Your task to perform on an android device: Open maps Image 0: 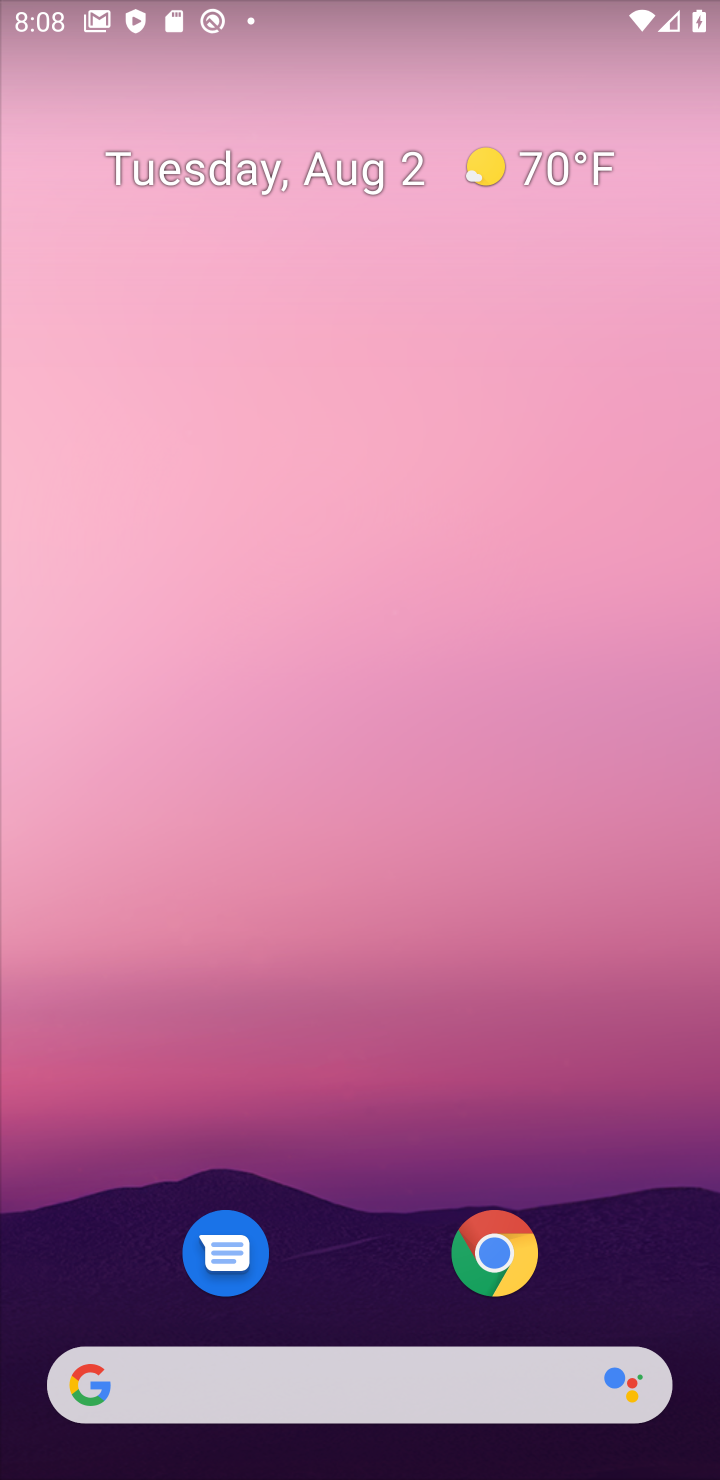
Step 0: drag from (431, 1349) to (597, 173)
Your task to perform on an android device: Open maps Image 1: 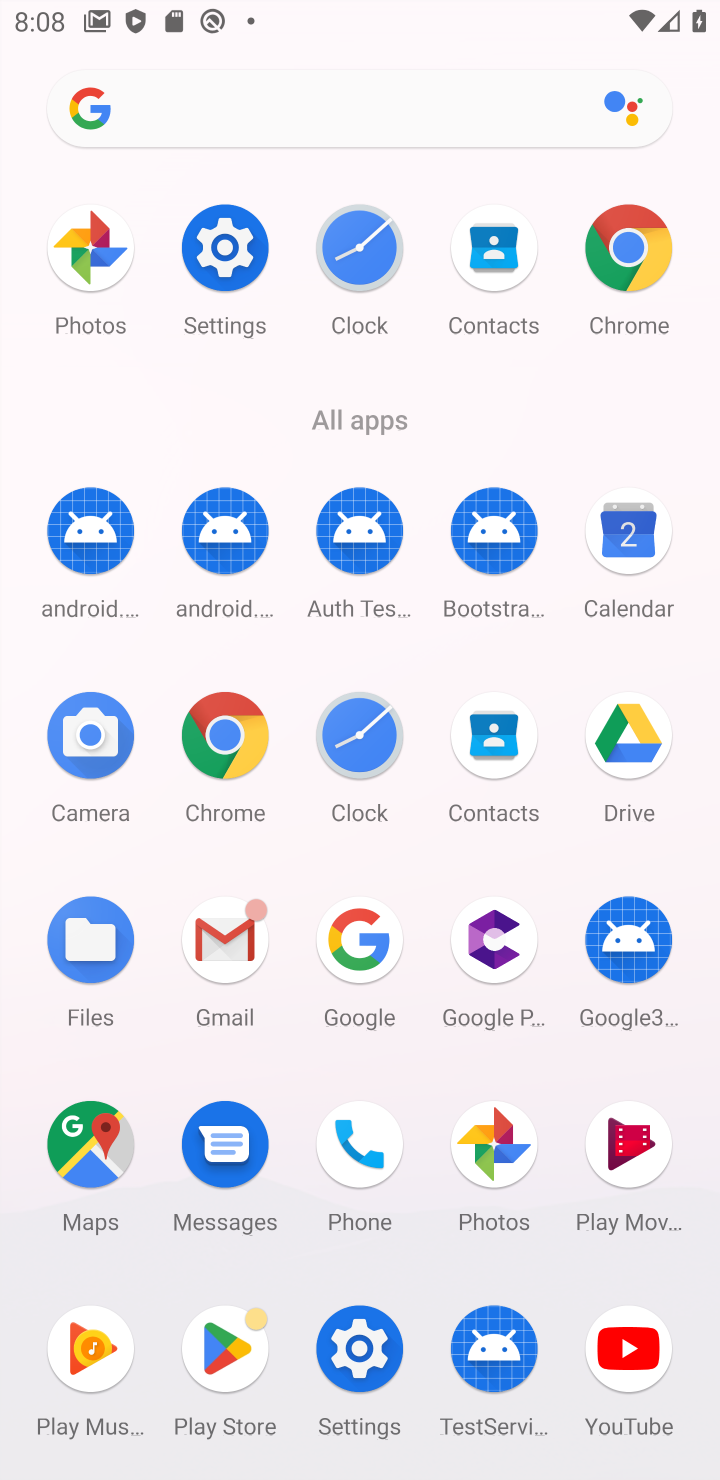
Step 1: drag from (95, 1149) to (259, 828)
Your task to perform on an android device: Open maps Image 2: 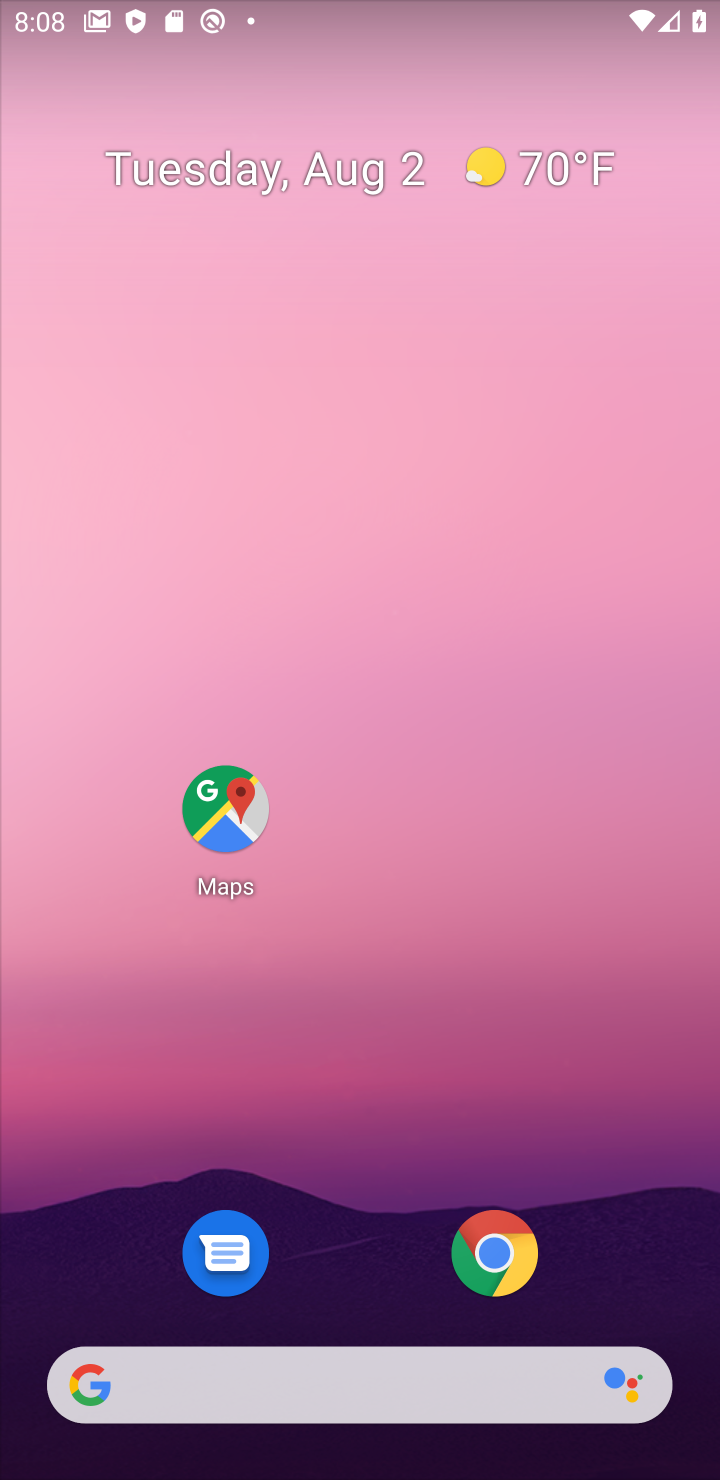
Step 2: click (234, 808)
Your task to perform on an android device: Open maps Image 3: 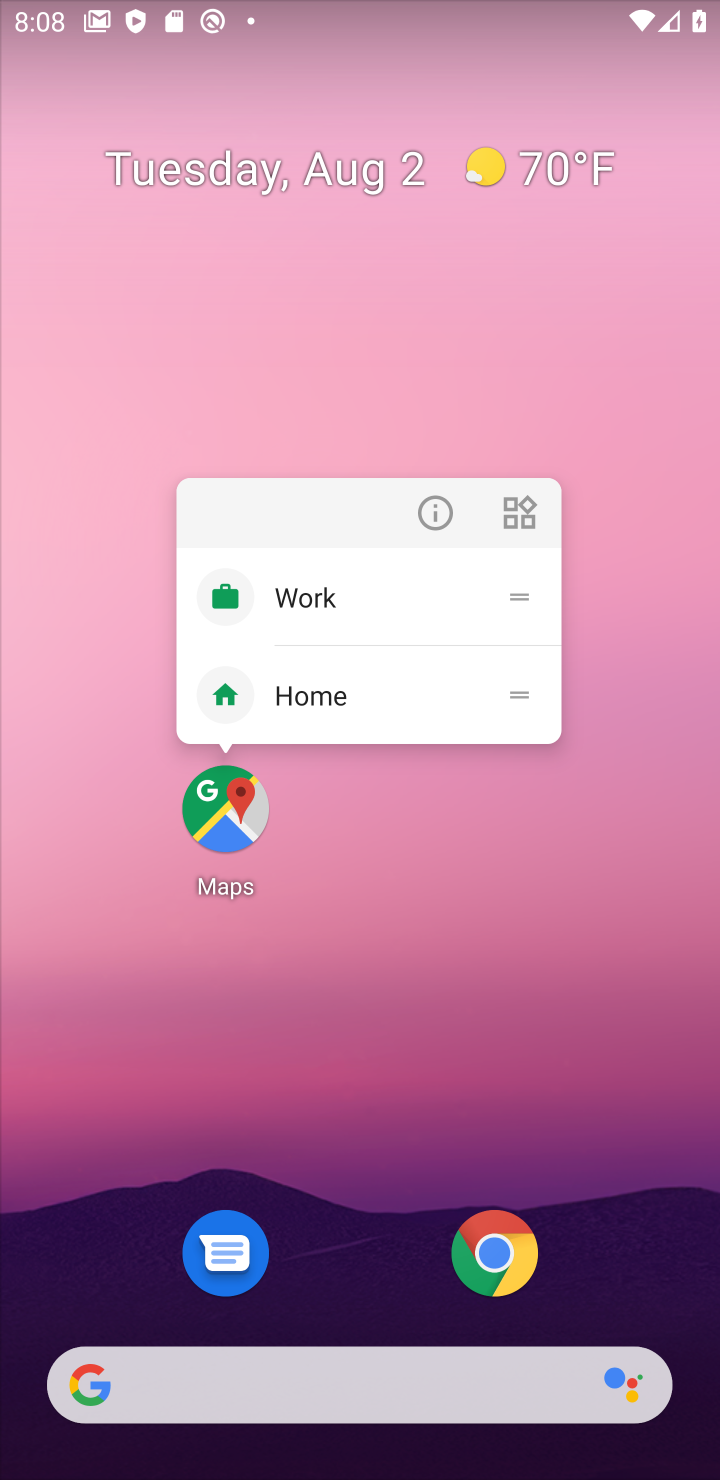
Step 3: click (234, 810)
Your task to perform on an android device: Open maps Image 4: 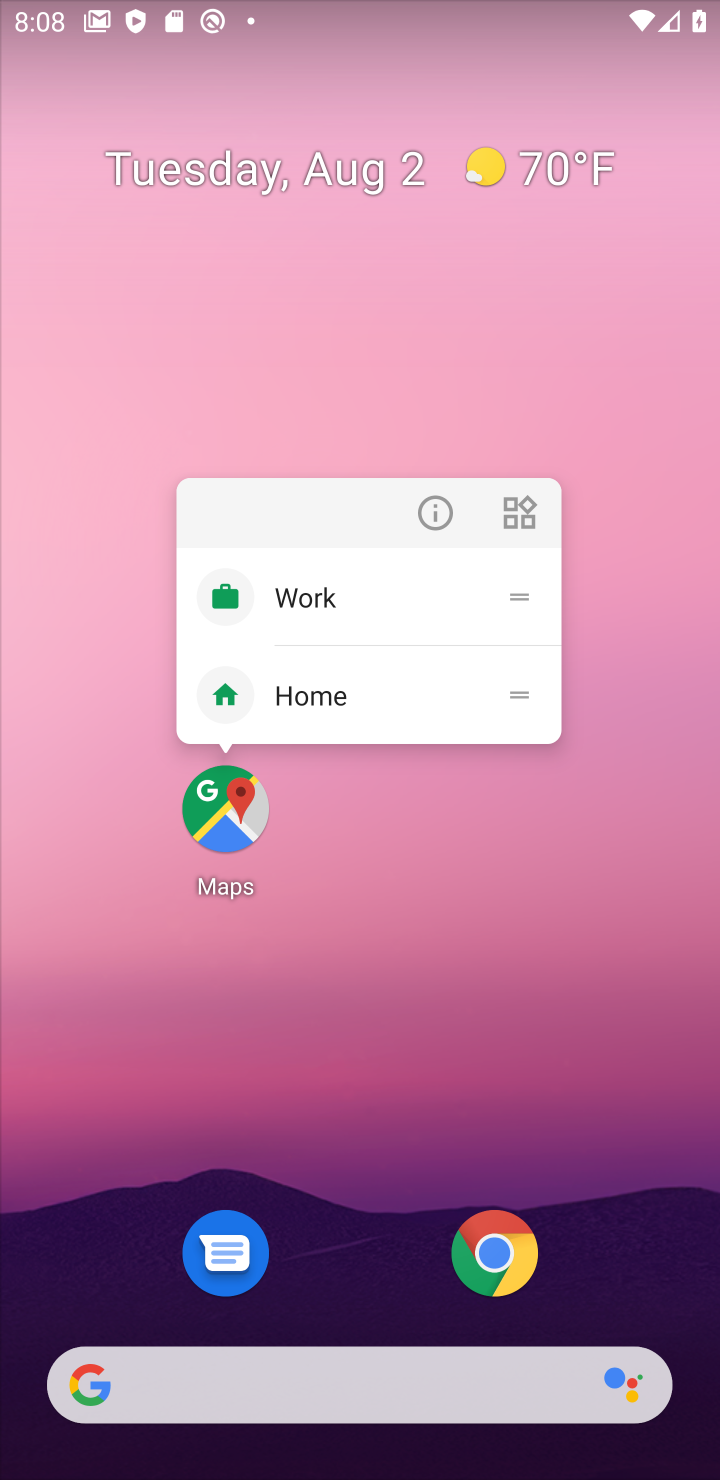
Step 4: click (234, 810)
Your task to perform on an android device: Open maps Image 5: 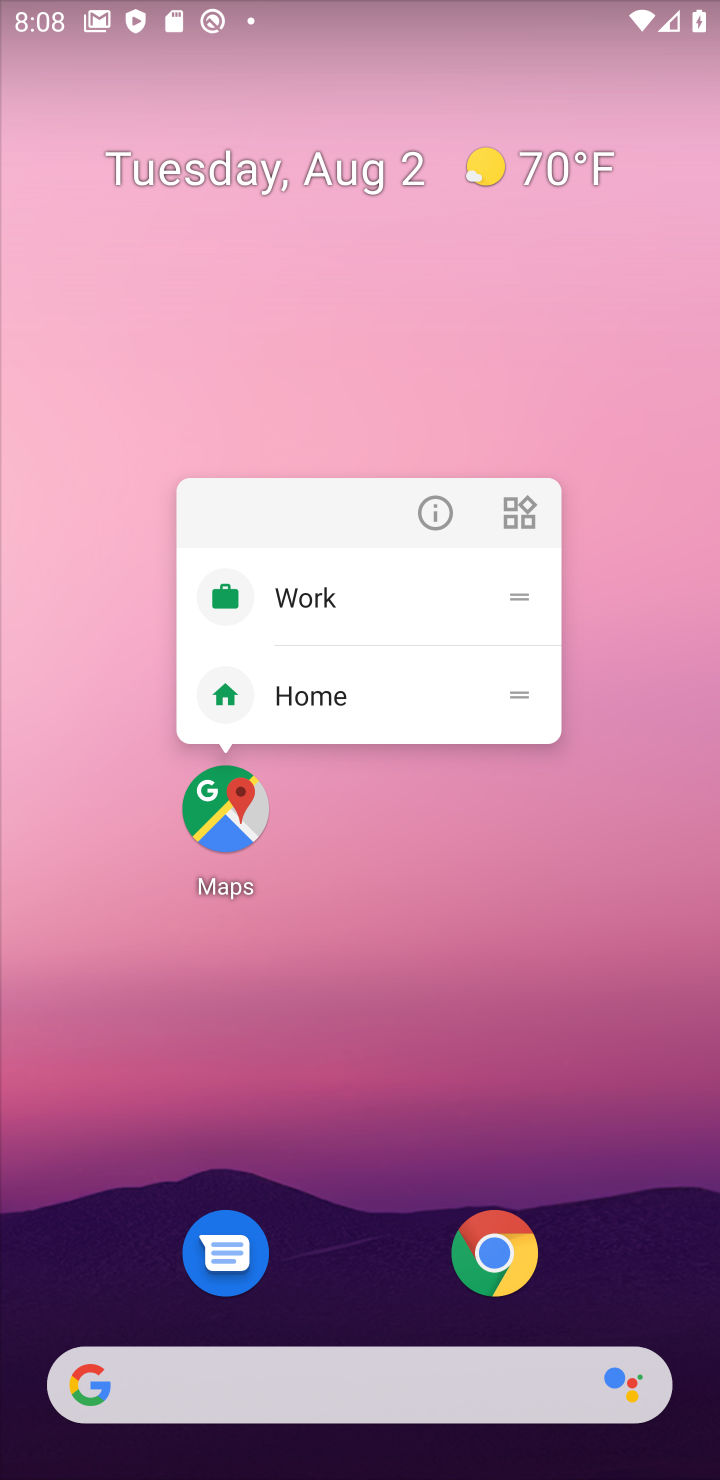
Step 5: click (234, 810)
Your task to perform on an android device: Open maps Image 6: 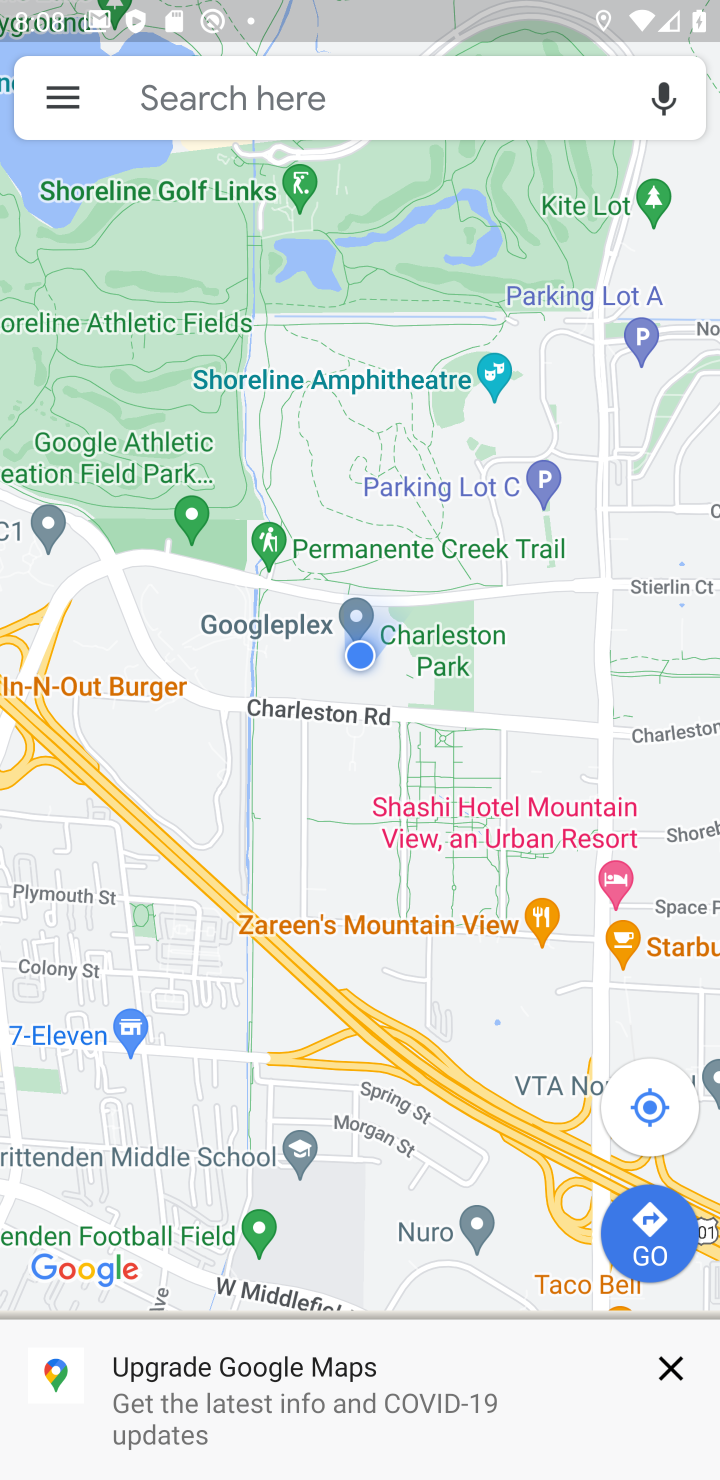
Step 6: task complete